Your task to perform on an android device: turn on javascript in the chrome app Image 0: 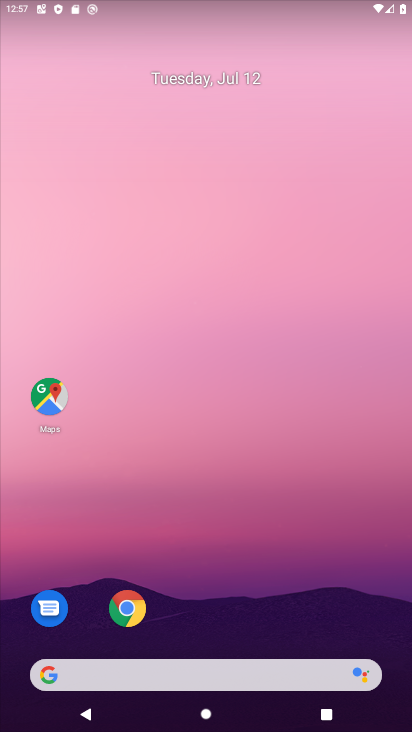
Step 0: drag from (245, 605) to (243, 261)
Your task to perform on an android device: turn on javascript in the chrome app Image 1: 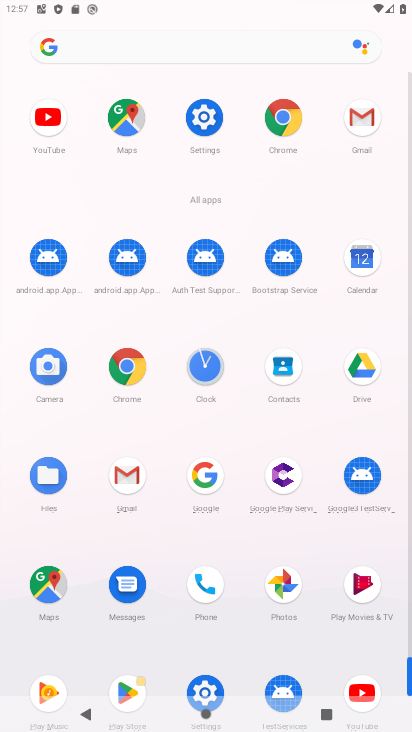
Step 1: click (291, 128)
Your task to perform on an android device: turn on javascript in the chrome app Image 2: 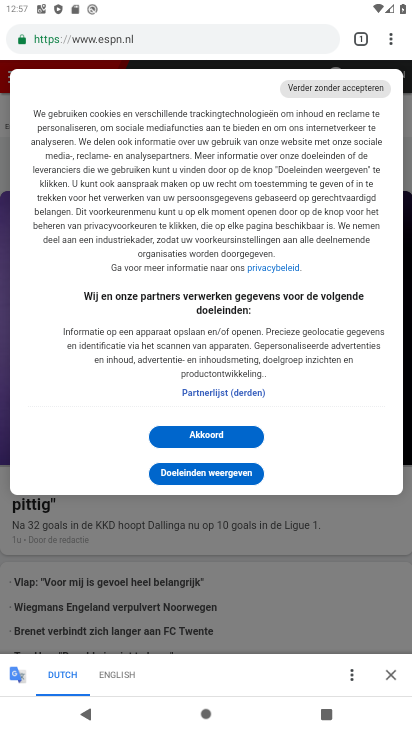
Step 2: click (390, 42)
Your task to perform on an android device: turn on javascript in the chrome app Image 3: 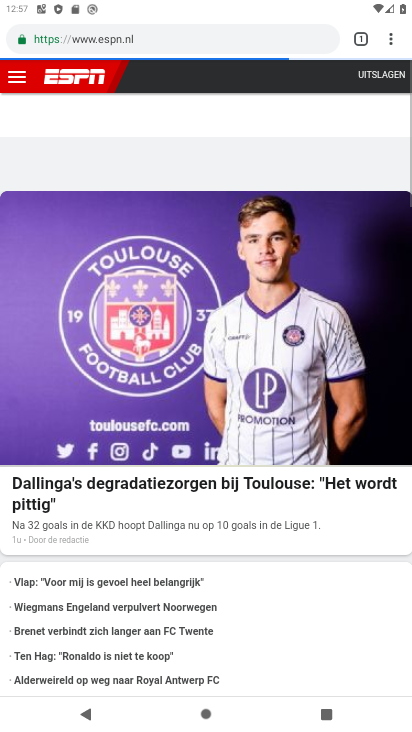
Step 3: click (391, 42)
Your task to perform on an android device: turn on javascript in the chrome app Image 4: 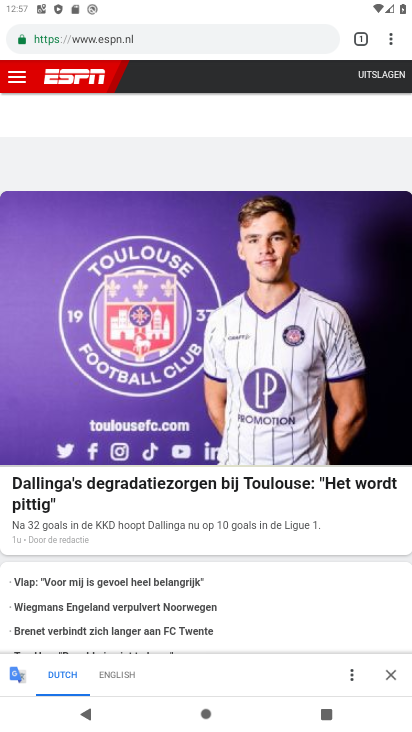
Step 4: click (397, 33)
Your task to perform on an android device: turn on javascript in the chrome app Image 5: 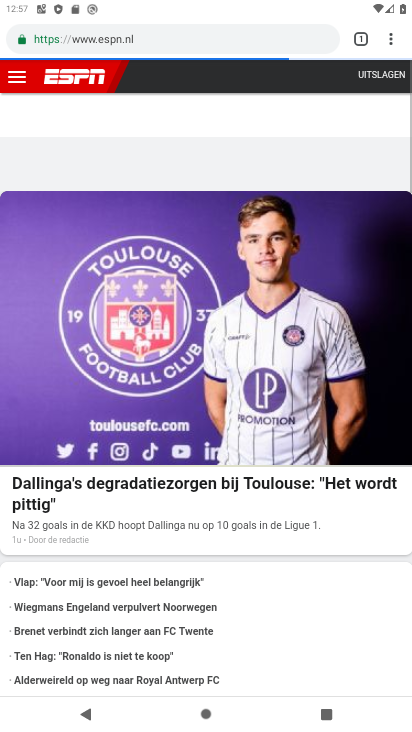
Step 5: click (392, 40)
Your task to perform on an android device: turn on javascript in the chrome app Image 6: 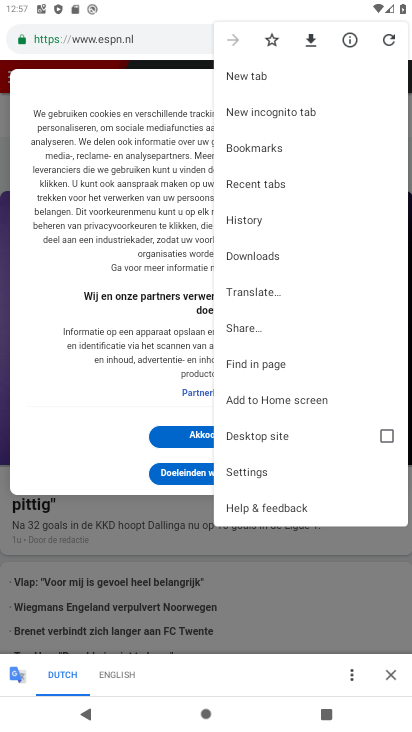
Step 6: click (252, 458)
Your task to perform on an android device: turn on javascript in the chrome app Image 7: 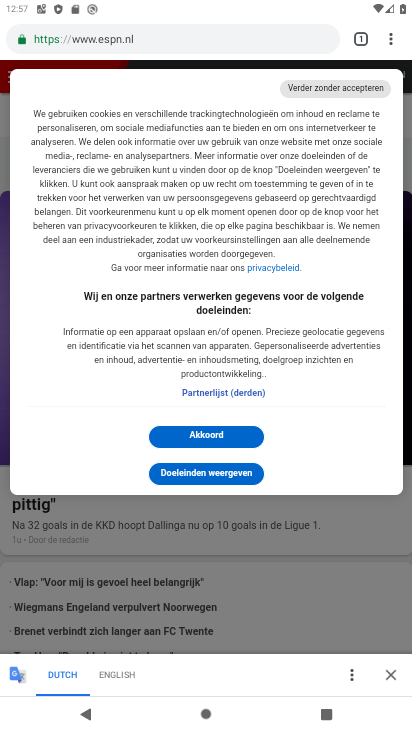
Step 7: click (252, 473)
Your task to perform on an android device: turn on javascript in the chrome app Image 8: 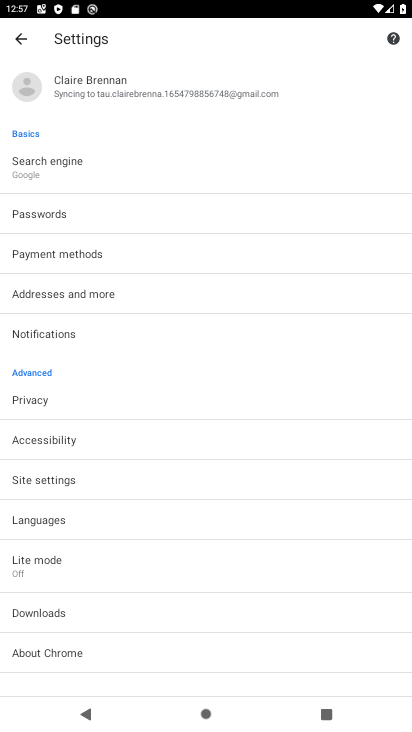
Step 8: click (63, 483)
Your task to perform on an android device: turn on javascript in the chrome app Image 9: 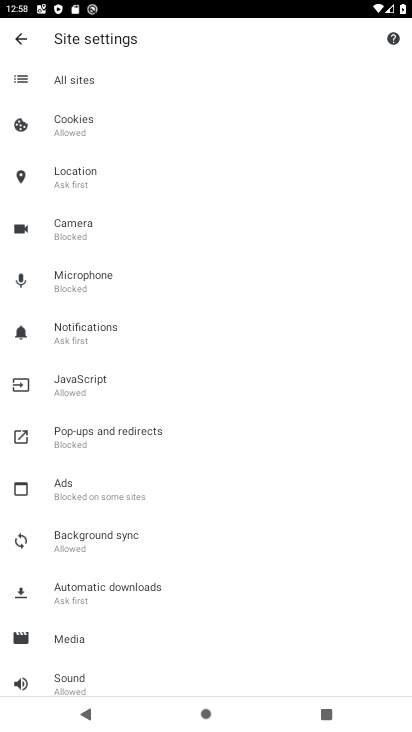
Step 9: click (122, 372)
Your task to perform on an android device: turn on javascript in the chrome app Image 10: 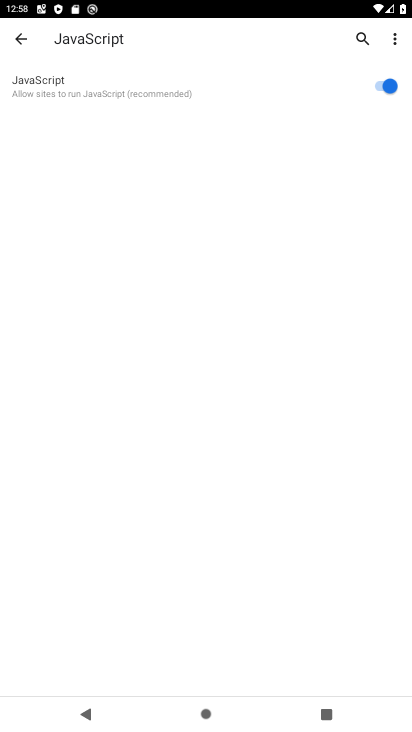
Step 10: task complete